Your task to perform on an android device: Turn on the flashlight Image 0: 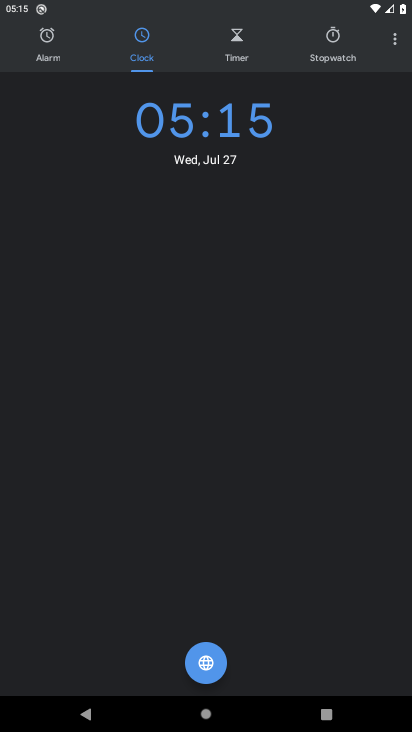
Step 0: press home button
Your task to perform on an android device: Turn on the flashlight Image 1: 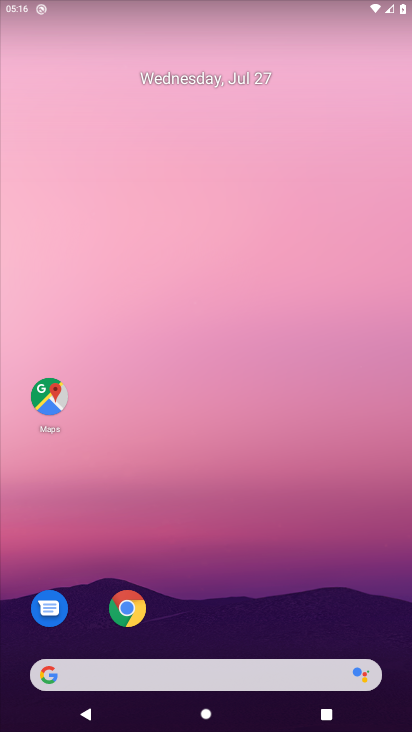
Step 1: task complete